Your task to perform on an android device: delete browsing data in the chrome app Image 0: 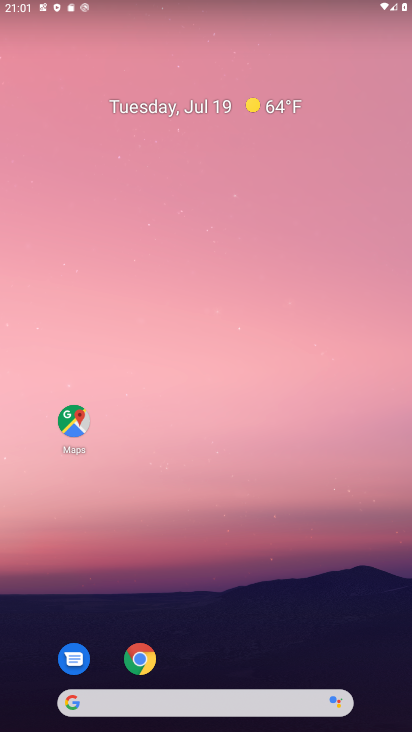
Step 0: click (139, 669)
Your task to perform on an android device: delete browsing data in the chrome app Image 1: 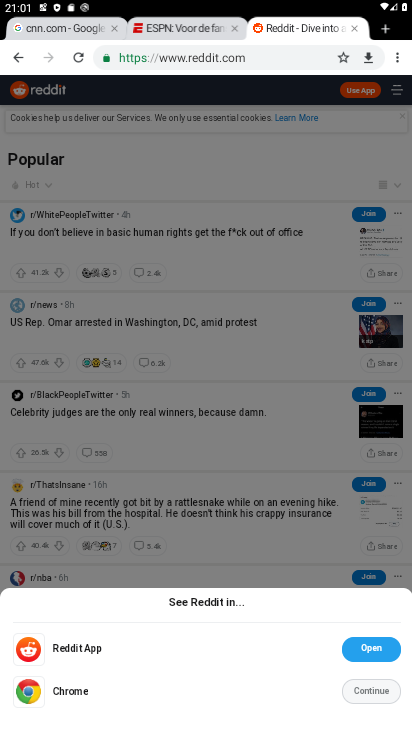
Step 1: click (402, 66)
Your task to perform on an android device: delete browsing data in the chrome app Image 2: 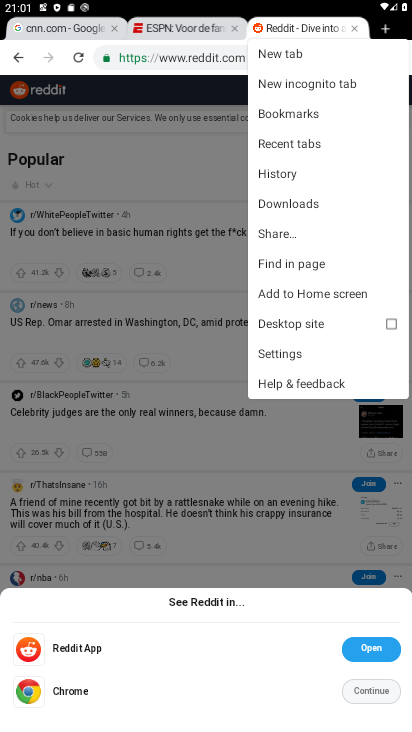
Step 2: click (301, 177)
Your task to perform on an android device: delete browsing data in the chrome app Image 3: 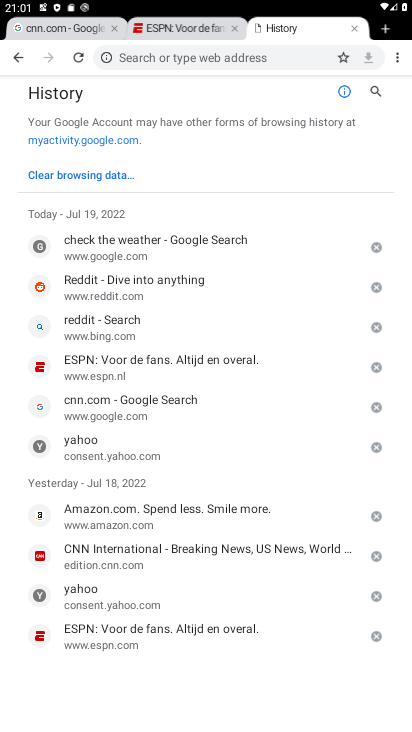
Step 3: click (116, 185)
Your task to perform on an android device: delete browsing data in the chrome app Image 4: 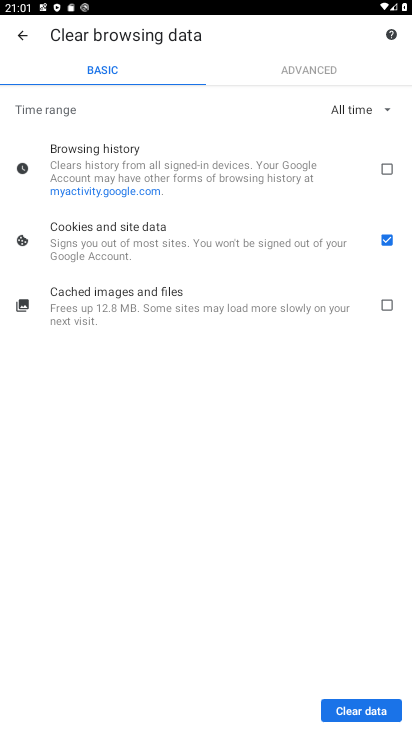
Step 4: click (385, 164)
Your task to perform on an android device: delete browsing data in the chrome app Image 5: 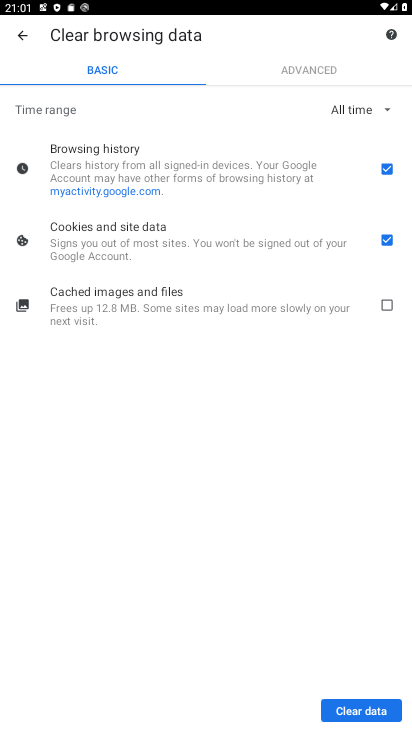
Step 5: click (388, 240)
Your task to perform on an android device: delete browsing data in the chrome app Image 6: 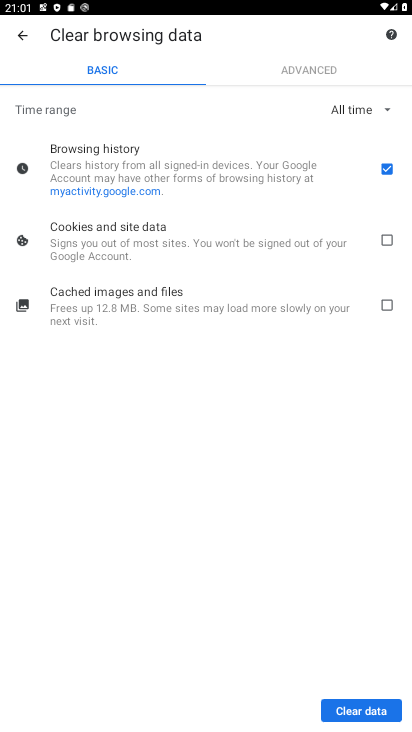
Step 6: click (345, 712)
Your task to perform on an android device: delete browsing data in the chrome app Image 7: 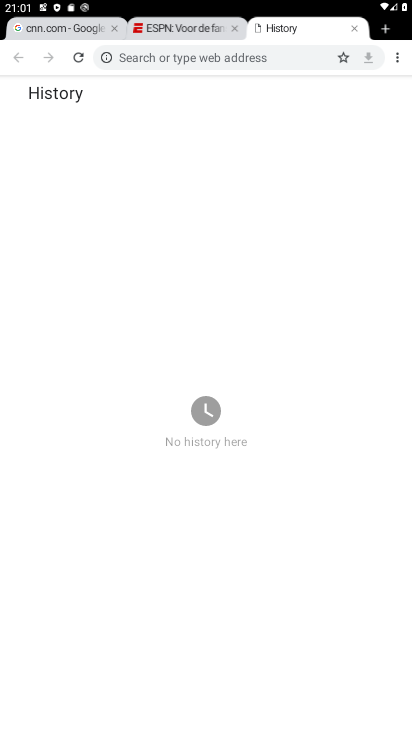
Step 7: task complete